Your task to perform on an android device: Go to Google maps Image 0: 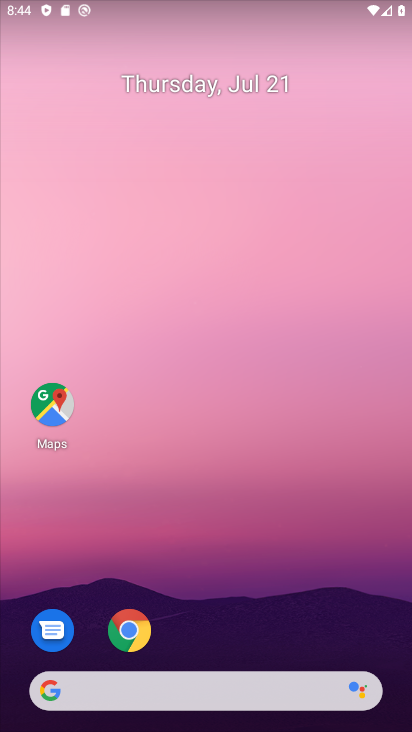
Step 0: click (53, 424)
Your task to perform on an android device: Go to Google maps Image 1: 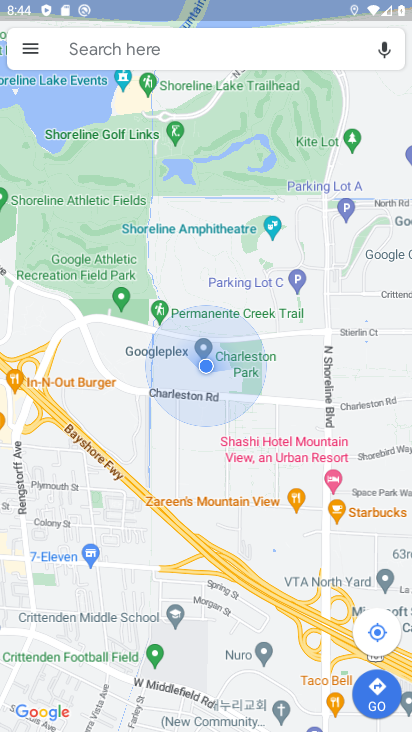
Step 1: task complete